Your task to perform on an android device: Go to ESPN.com Image 0: 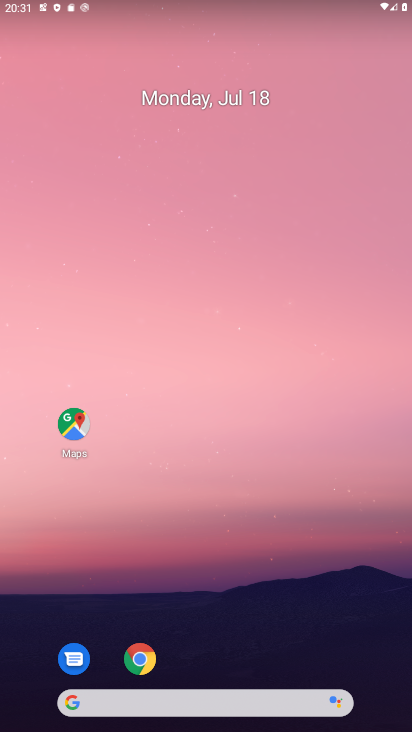
Step 0: drag from (312, 656) to (236, 147)
Your task to perform on an android device: Go to ESPN.com Image 1: 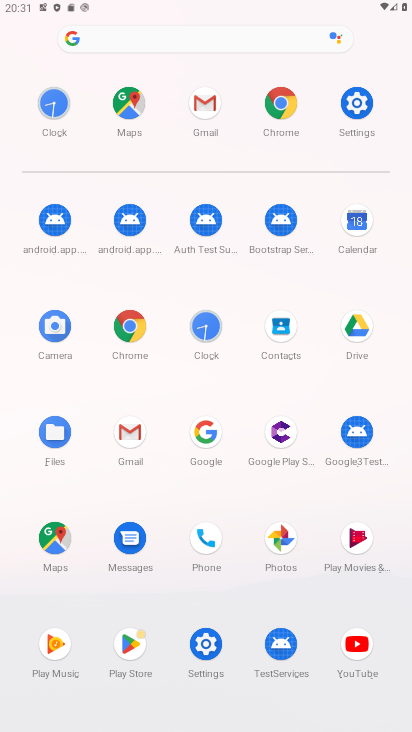
Step 1: click (283, 111)
Your task to perform on an android device: Go to ESPN.com Image 2: 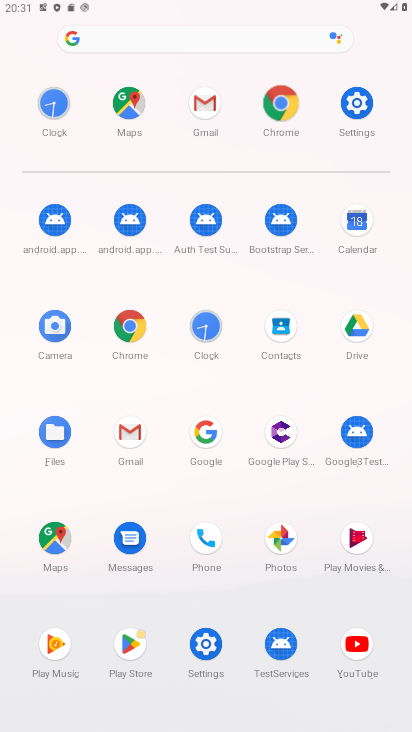
Step 2: click (286, 107)
Your task to perform on an android device: Go to ESPN.com Image 3: 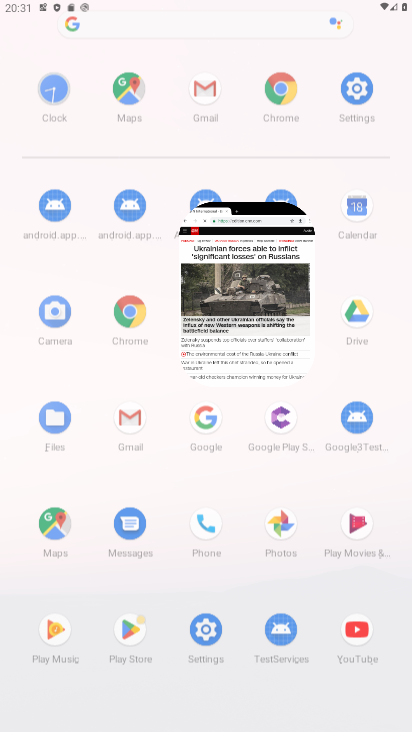
Step 3: click (286, 107)
Your task to perform on an android device: Go to ESPN.com Image 4: 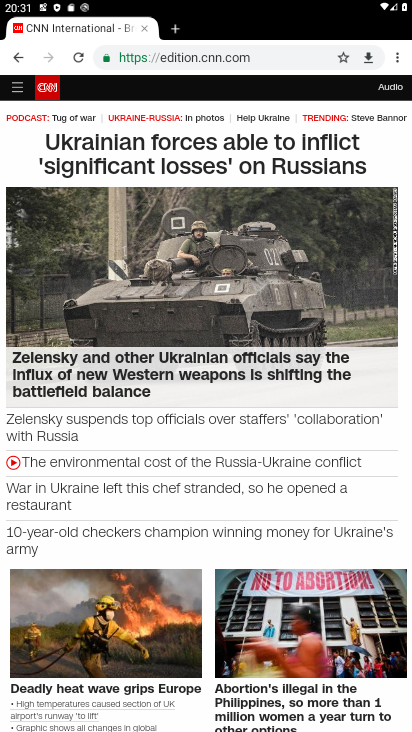
Step 4: press back button
Your task to perform on an android device: Go to ESPN.com Image 5: 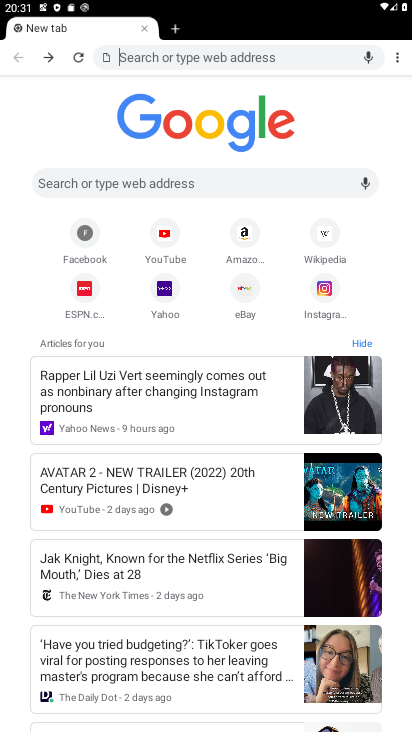
Step 5: click (80, 288)
Your task to perform on an android device: Go to ESPN.com Image 6: 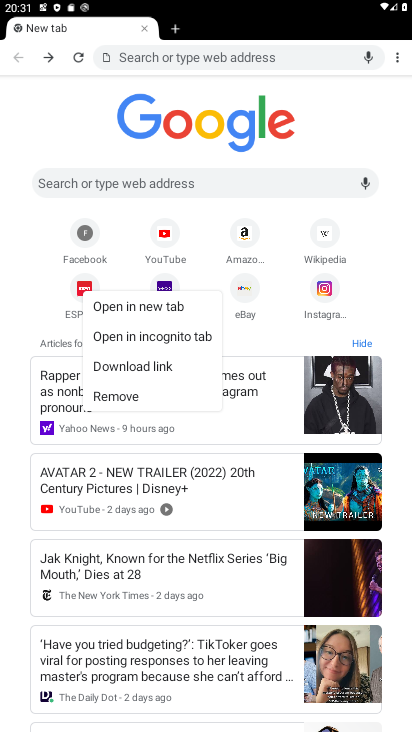
Step 6: click (79, 287)
Your task to perform on an android device: Go to ESPN.com Image 7: 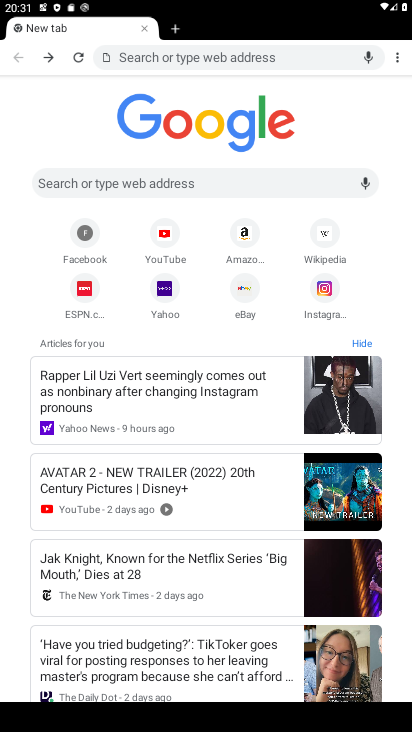
Step 7: click (79, 287)
Your task to perform on an android device: Go to ESPN.com Image 8: 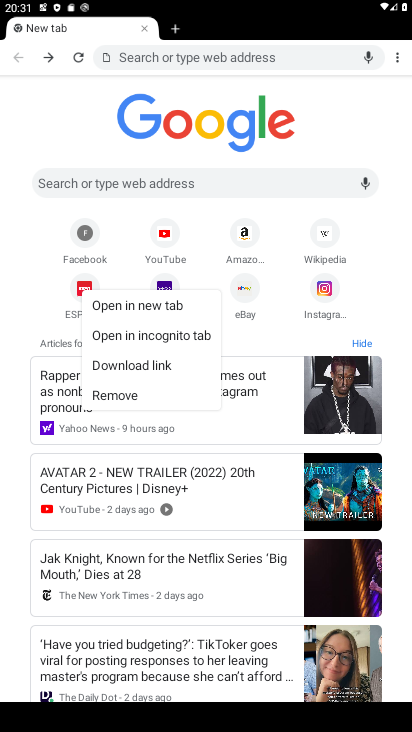
Step 8: click (92, 277)
Your task to perform on an android device: Go to ESPN.com Image 9: 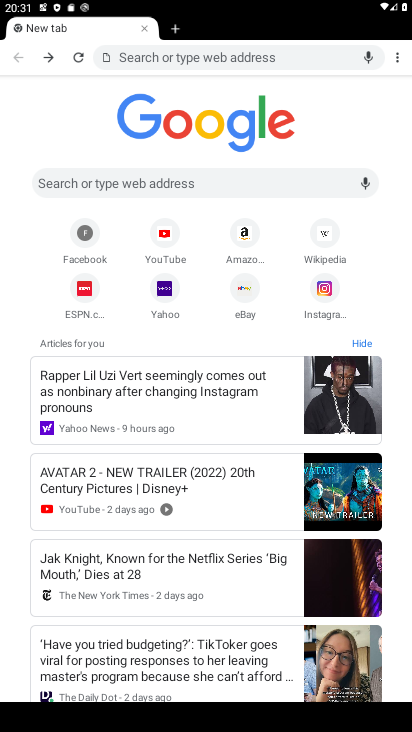
Step 9: click (92, 277)
Your task to perform on an android device: Go to ESPN.com Image 10: 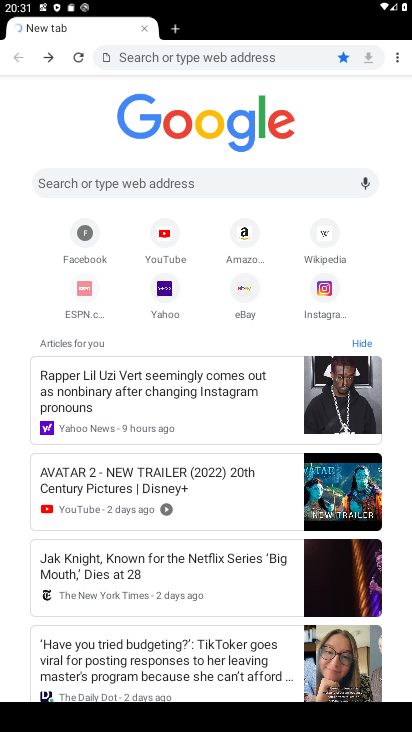
Step 10: click (84, 285)
Your task to perform on an android device: Go to ESPN.com Image 11: 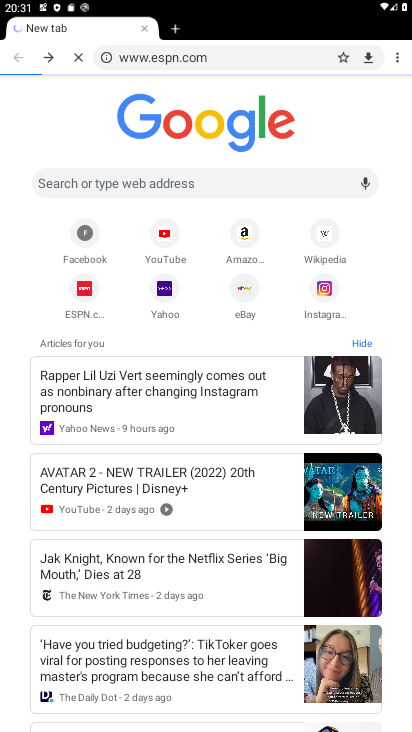
Step 11: click (82, 290)
Your task to perform on an android device: Go to ESPN.com Image 12: 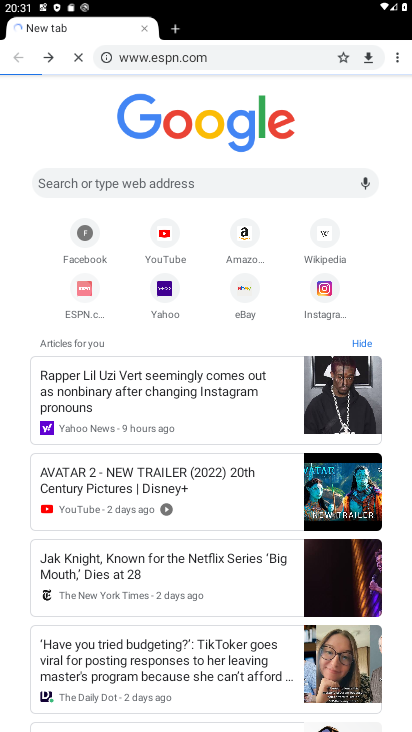
Step 12: click (87, 291)
Your task to perform on an android device: Go to ESPN.com Image 13: 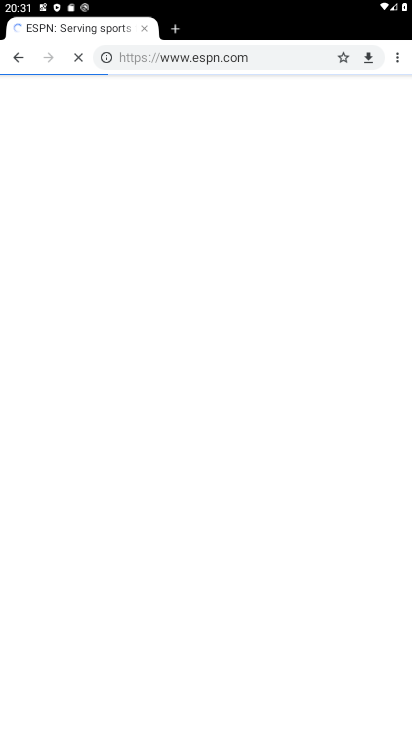
Step 13: click (91, 288)
Your task to perform on an android device: Go to ESPN.com Image 14: 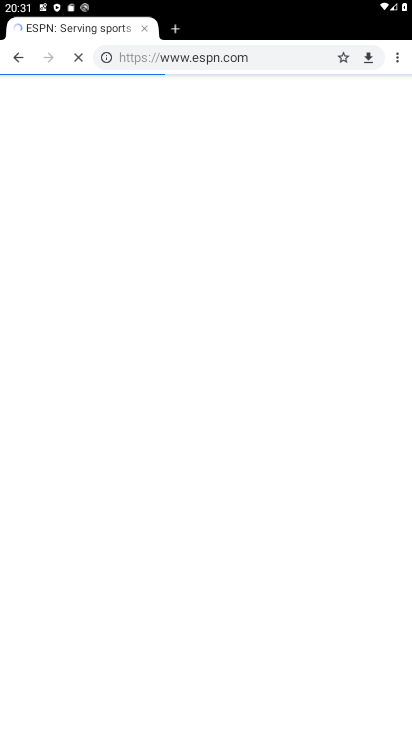
Step 14: click (91, 288)
Your task to perform on an android device: Go to ESPN.com Image 15: 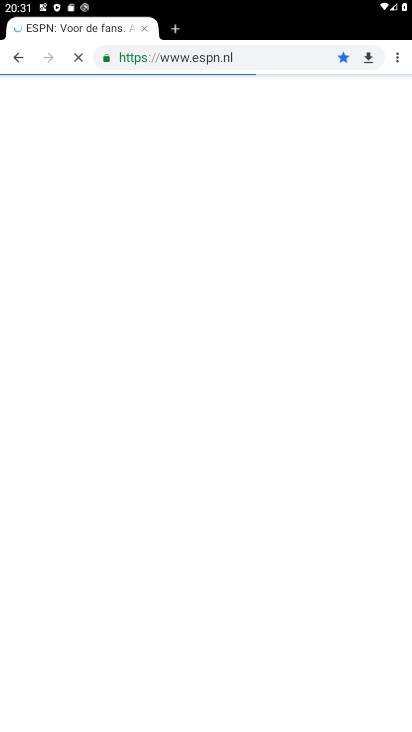
Step 15: task complete